Your task to perform on an android device: turn off sleep mode Image 0: 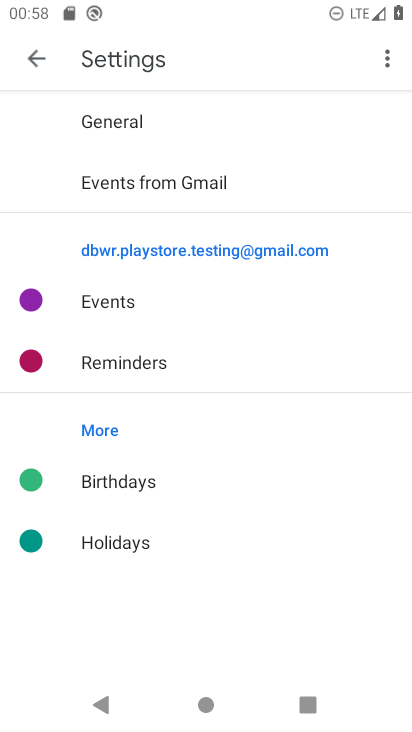
Step 0: press home button
Your task to perform on an android device: turn off sleep mode Image 1: 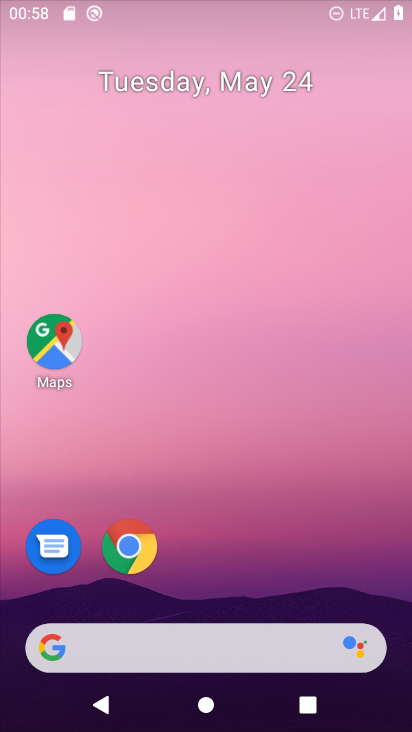
Step 1: drag from (262, 649) to (243, 12)
Your task to perform on an android device: turn off sleep mode Image 2: 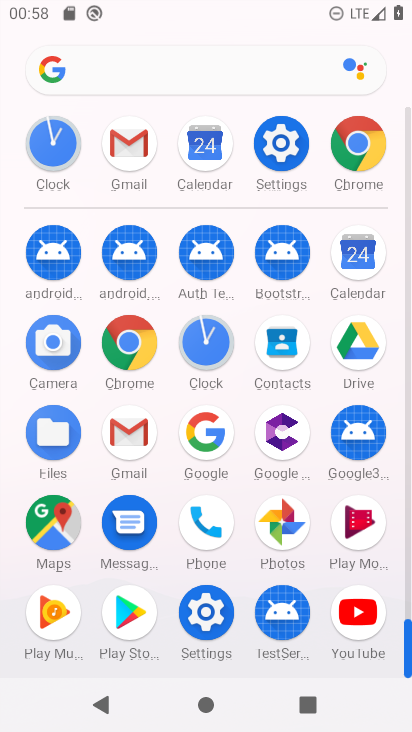
Step 2: click (279, 141)
Your task to perform on an android device: turn off sleep mode Image 3: 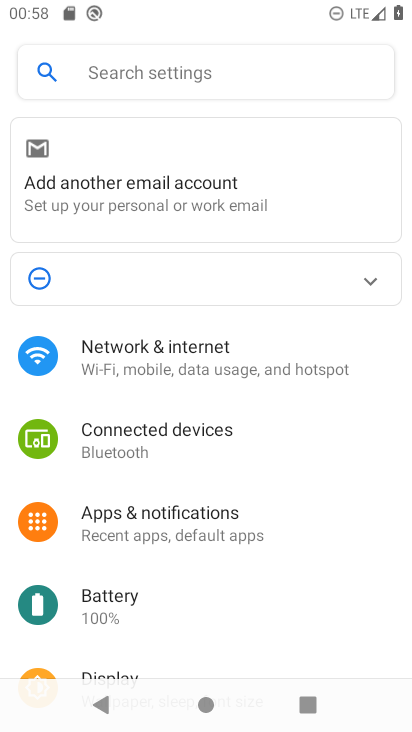
Step 3: drag from (197, 598) to (200, 214)
Your task to perform on an android device: turn off sleep mode Image 4: 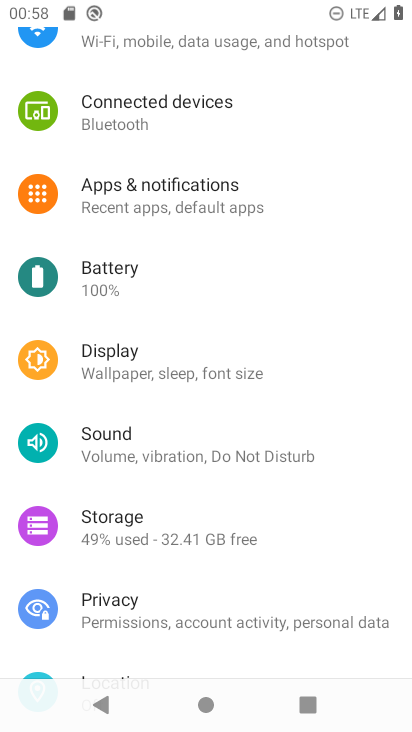
Step 4: click (172, 365)
Your task to perform on an android device: turn off sleep mode Image 5: 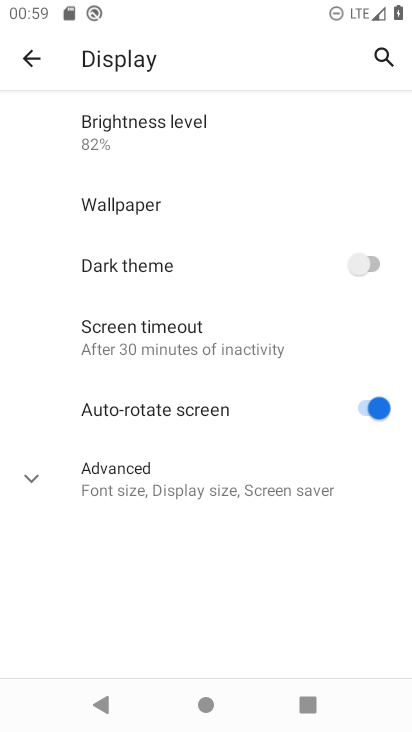
Step 5: press back button
Your task to perform on an android device: turn off sleep mode Image 6: 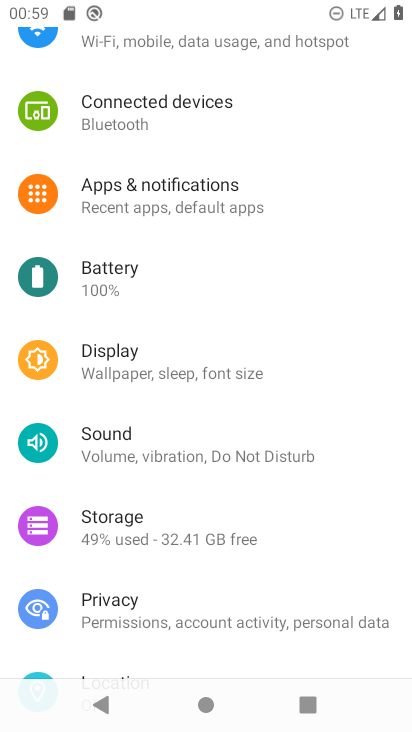
Step 6: click (164, 354)
Your task to perform on an android device: turn off sleep mode Image 7: 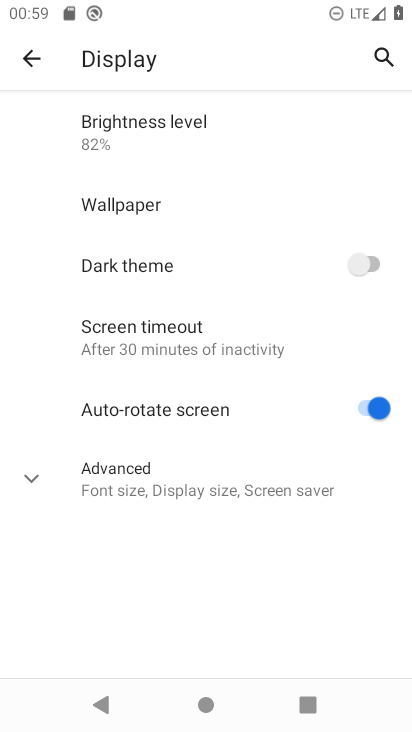
Step 7: task complete